Your task to perform on an android device: toggle pop-ups in chrome Image 0: 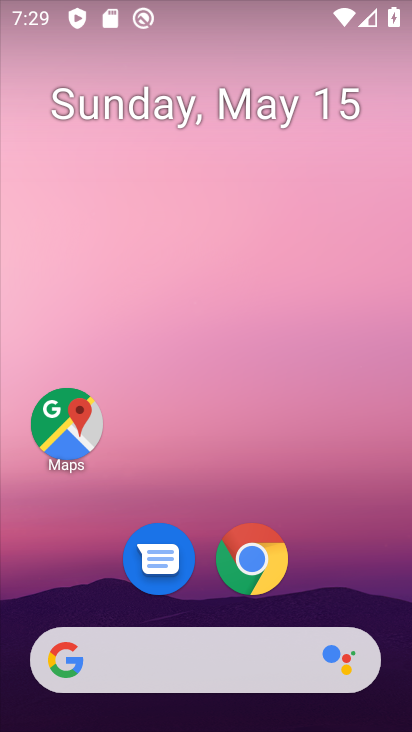
Step 0: drag from (349, 345) to (348, 75)
Your task to perform on an android device: toggle pop-ups in chrome Image 1: 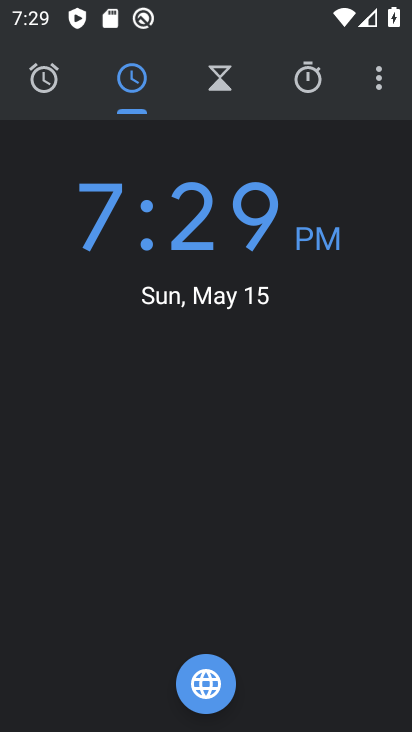
Step 1: press home button
Your task to perform on an android device: toggle pop-ups in chrome Image 2: 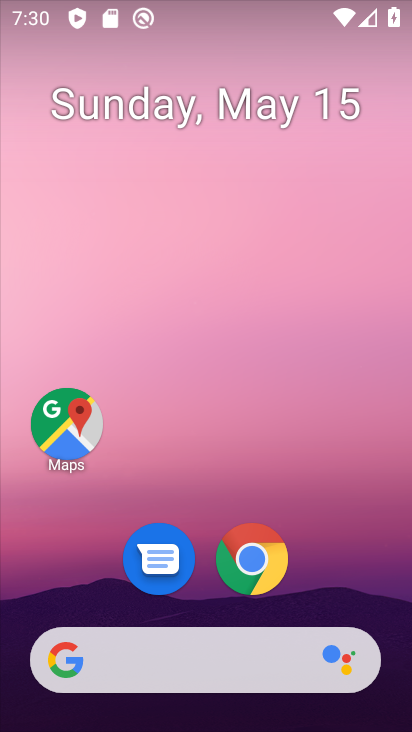
Step 2: click (275, 562)
Your task to perform on an android device: toggle pop-ups in chrome Image 3: 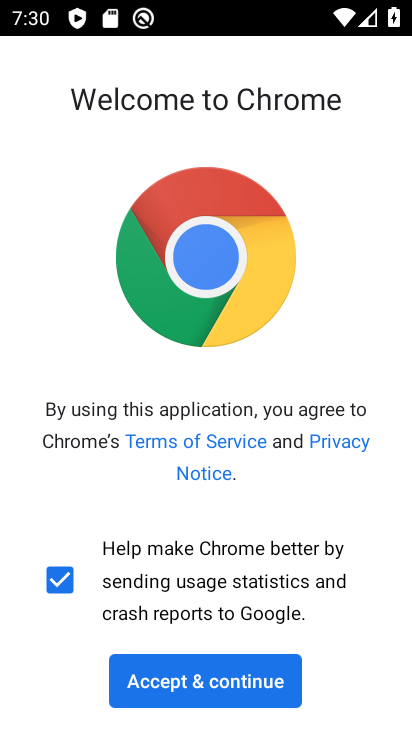
Step 3: click (230, 684)
Your task to perform on an android device: toggle pop-ups in chrome Image 4: 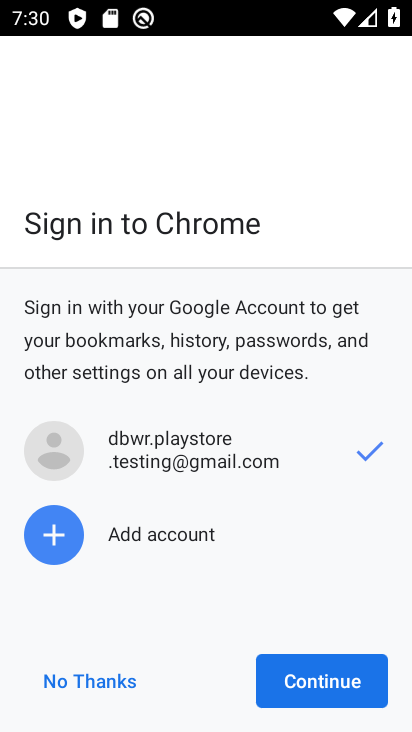
Step 4: click (291, 684)
Your task to perform on an android device: toggle pop-ups in chrome Image 5: 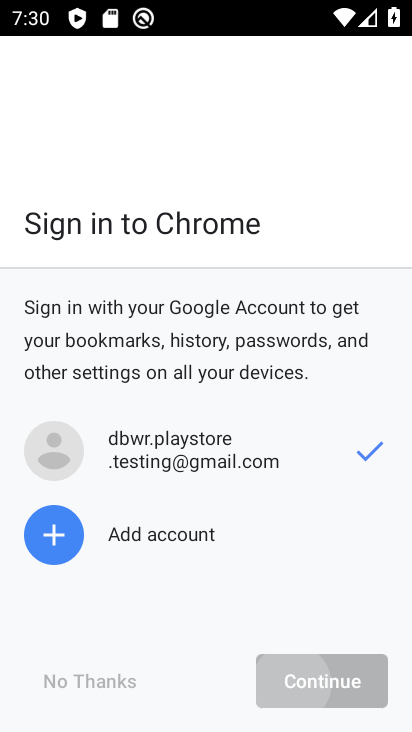
Step 5: click (291, 684)
Your task to perform on an android device: toggle pop-ups in chrome Image 6: 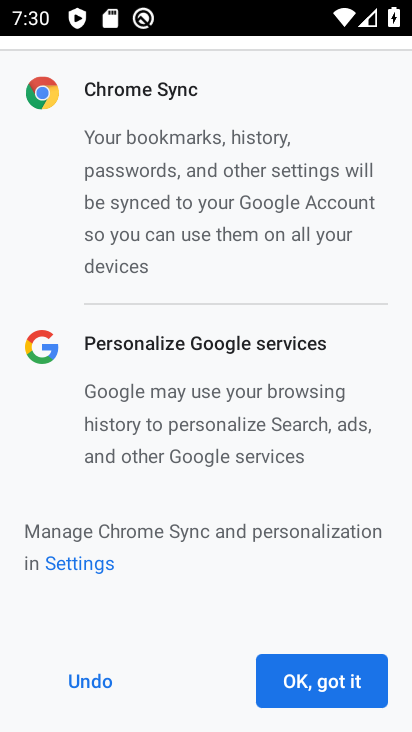
Step 6: click (342, 676)
Your task to perform on an android device: toggle pop-ups in chrome Image 7: 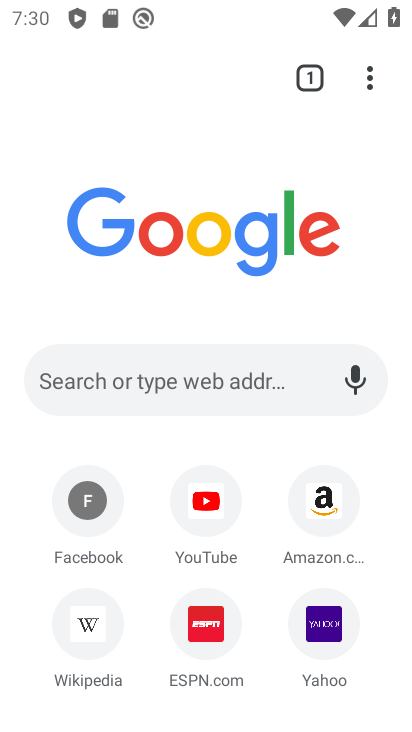
Step 7: click (367, 96)
Your task to perform on an android device: toggle pop-ups in chrome Image 8: 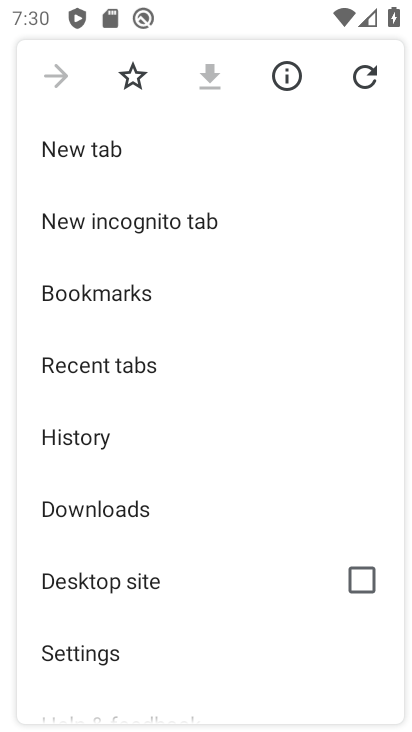
Step 8: click (84, 653)
Your task to perform on an android device: toggle pop-ups in chrome Image 9: 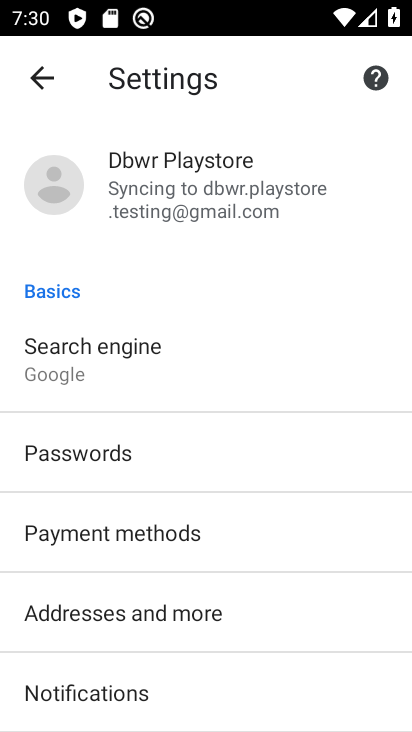
Step 9: drag from (326, 681) to (347, 321)
Your task to perform on an android device: toggle pop-ups in chrome Image 10: 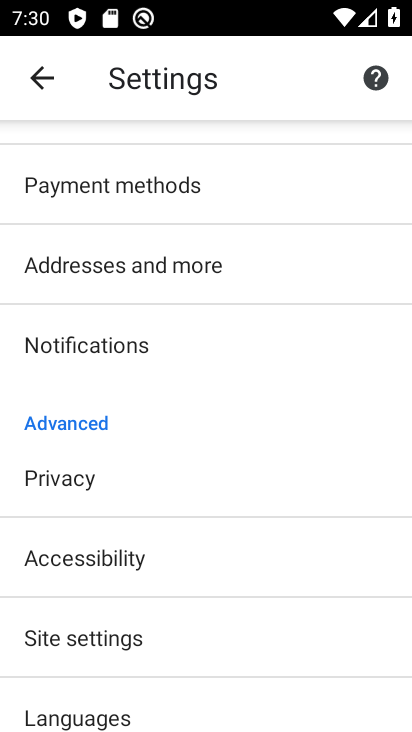
Step 10: click (231, 629)
Your task to perform on an android device: toggle pop-ups in chrome Image 11: 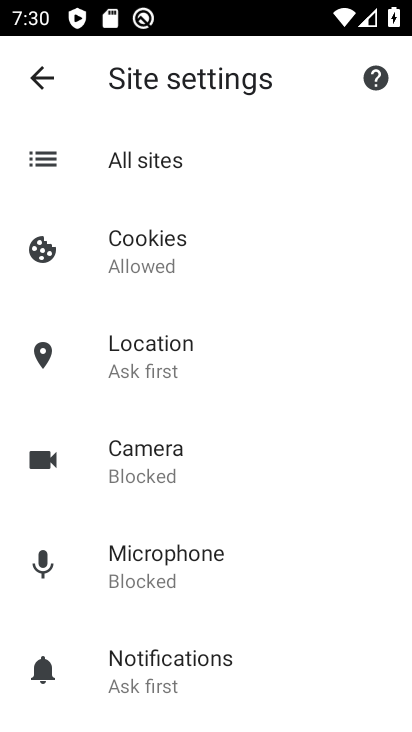
Step 11: click (44, 94)
Your task to perform on an android device: toggle pop-ups in chrome Image 12: 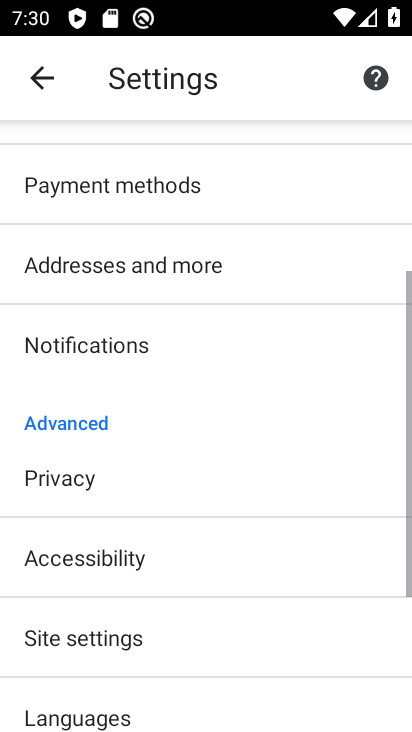
Step 12: drag from (136, 541) to (167, 349)
Your task to perform on an android device: toggle pop-ups in chrome Image 13: 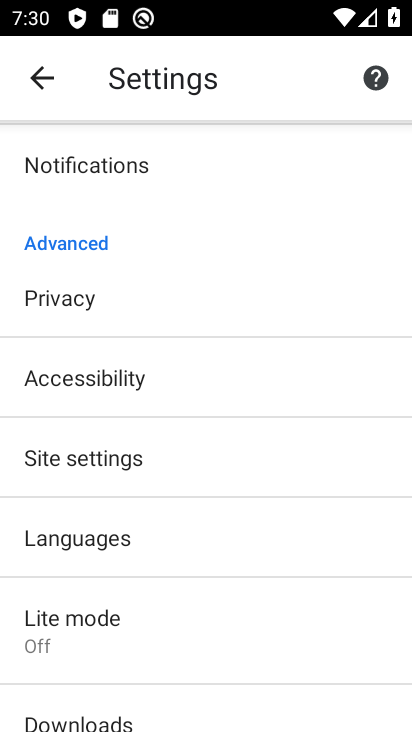
Step 13: click (175, 471)
Your task to perform on an android device: toggle pop-ups in chrome Image 14: 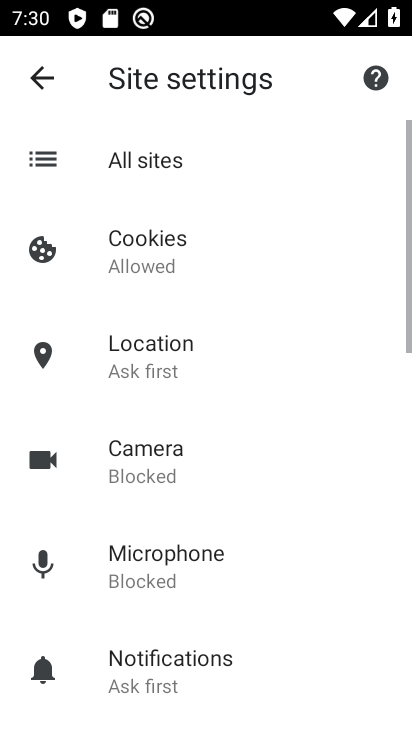
Step 14: drag from (139, 603) to (193, 257)
Your task to perform on an android device: toggle pop-ups in chrome Image 15: 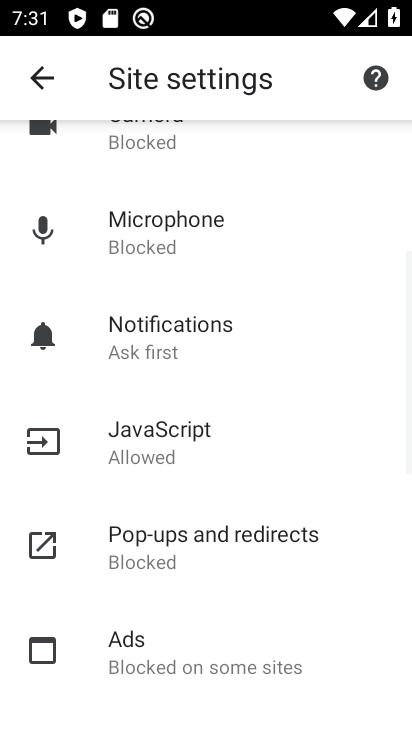
Step 15: click (209, 562)
Your task to perform on an android device: toggle pop-ups in chrome Image 16: 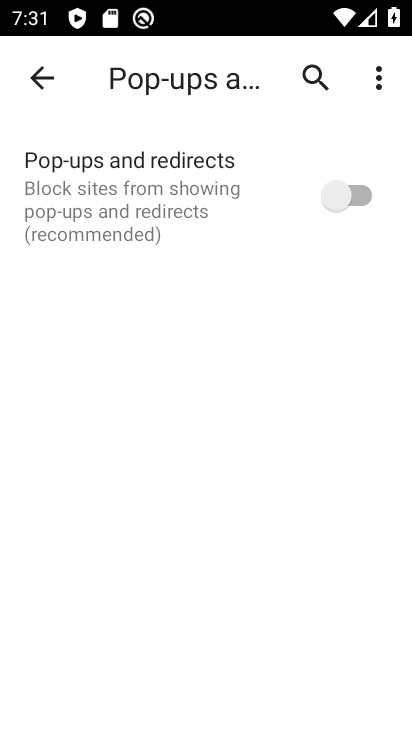
Step 16: click (324, 202)
Your task to perform on an android device: toggle pop-ups in chrome Image 17: 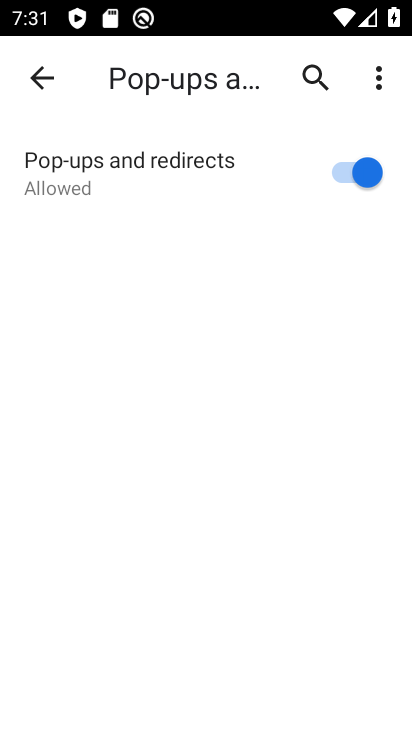
Step 17: task complete